Your task to perform on an android device: change notifications settings Image 0: 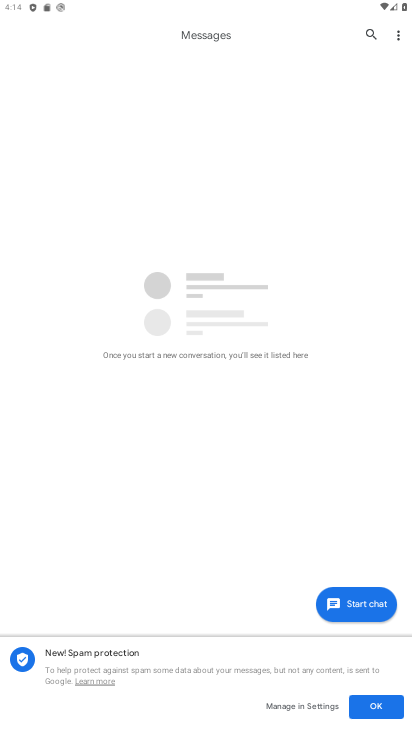
Step 0: press home button
Your task to perform on an android device: change notifications settings Image 1: 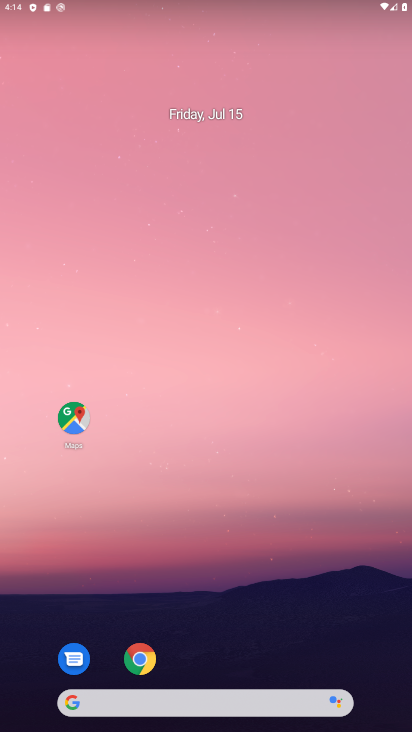
Step 1: drag from (188, 701) to (179, 7)
Your task to perform on an android device: change notifications settings Image 2: 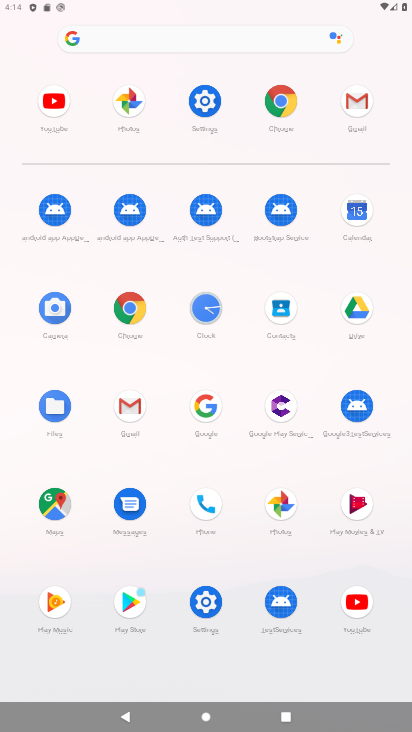
Step 2: click (205, 94)
Your task to perform on an android device: change notifications settings Image 3: 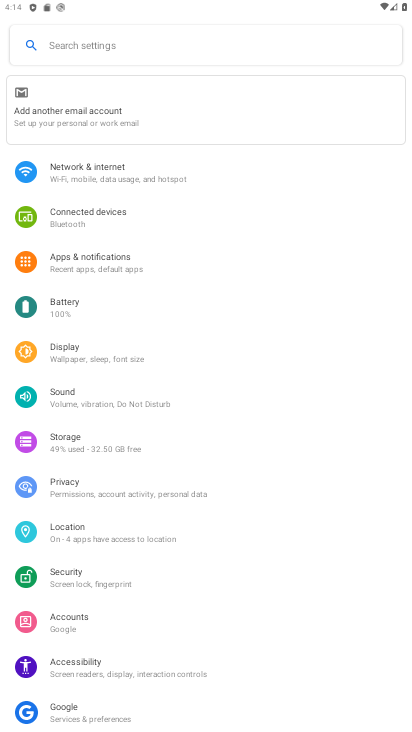
Step 3: click (159, 261)
Your task to perform on an android device: change notifications settings Image 4: 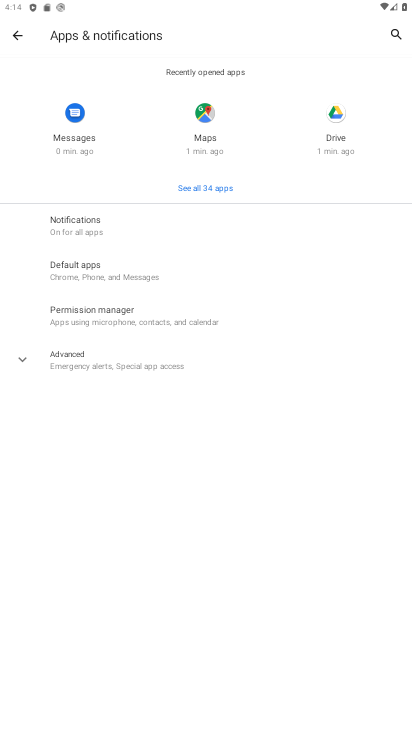
Step 4: click (101, 222)
Your task to perform on an android device: change notifications settings Image 5: 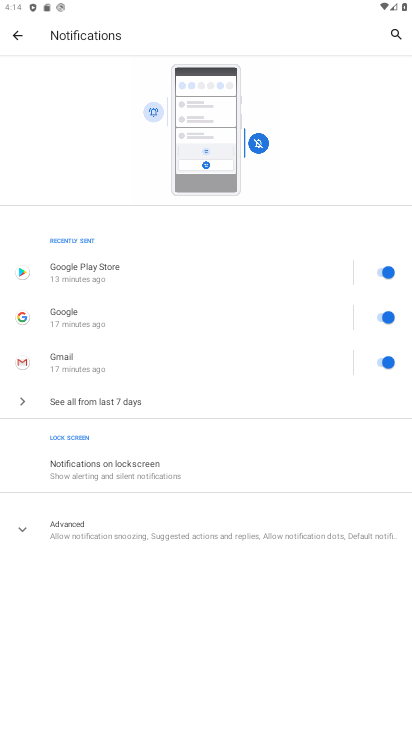
Step 5: click (389, 276)
Your task to perform on an android device: change notifications settings Image 6: 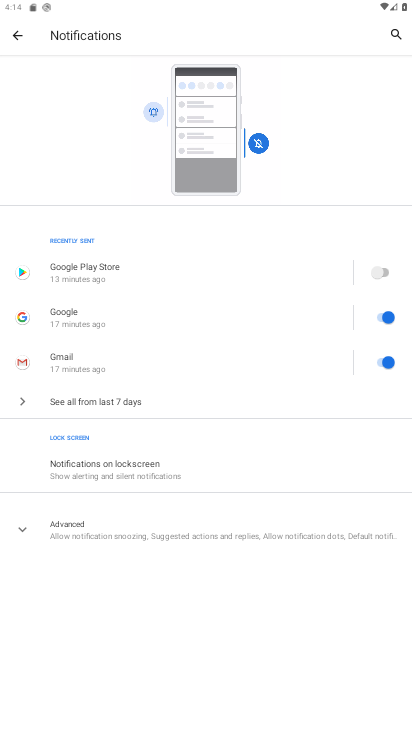
Step 6: task complete